Your task to perform on an android device: turn on javascript in the chrome app Image 0: 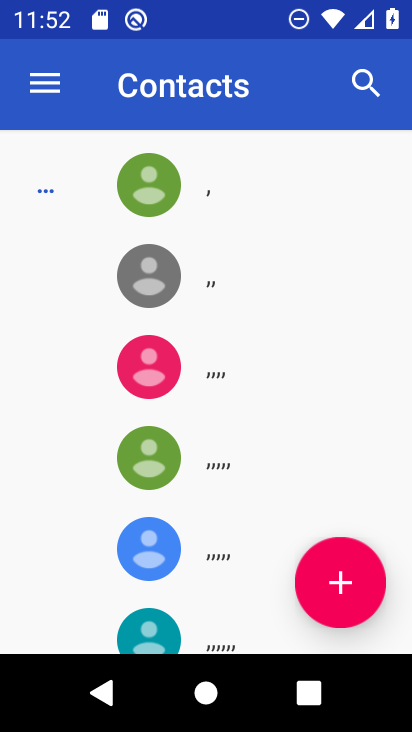
Step 0: press home button
Your task to perform on an android device: turn on javascript in the chrome app Image 1: 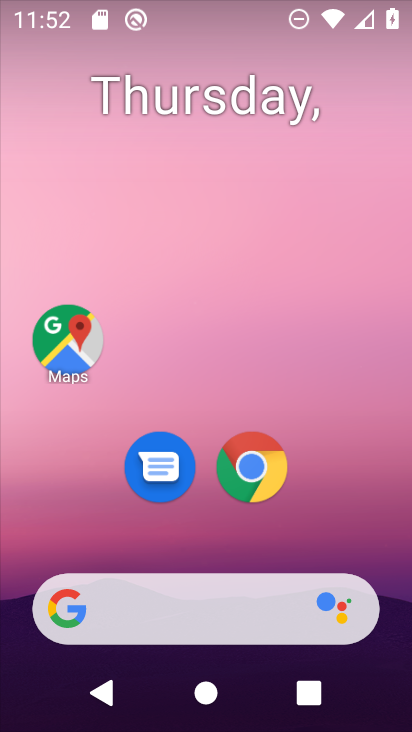
Step 1: click (261, 467)
Your task to perform on an android device: turn on javascript in the chrome app Image 2: 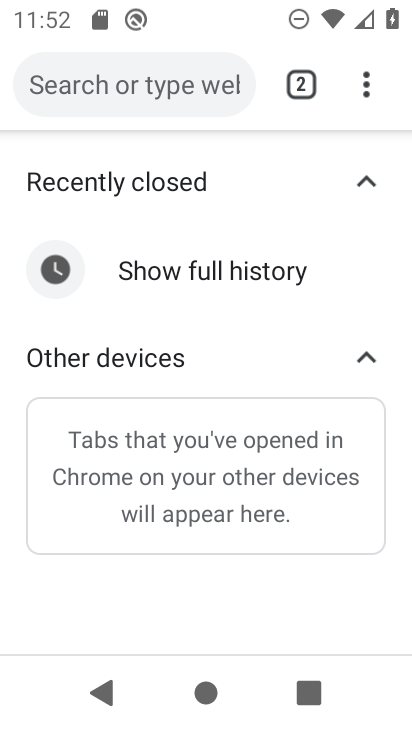
Step 2: click (370, 85)
Your task to perform on an android device: turn on javascript in the chrome app Image 3: 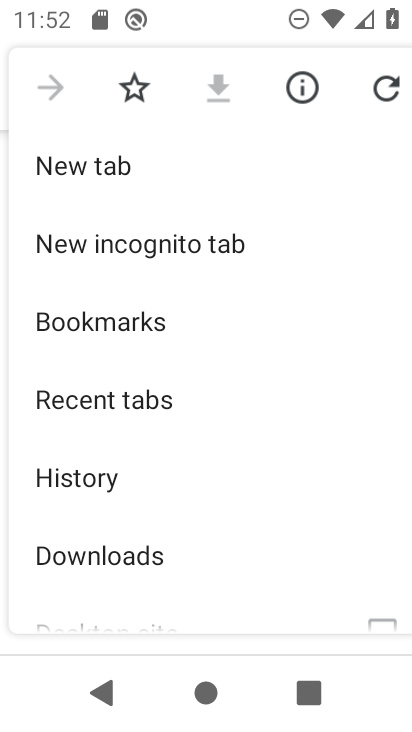
Step 3: drag from (197, 590) to (197, 90)
Your task to perform on an android device: turn on javascript in the chrome app Image 4: 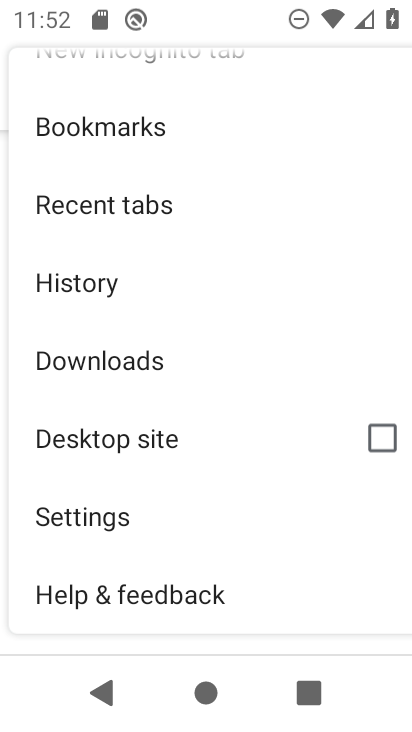
Step 4: click (72, 522)
Your task to perform on an android device: turn on javascript in the chrome app Image 5: 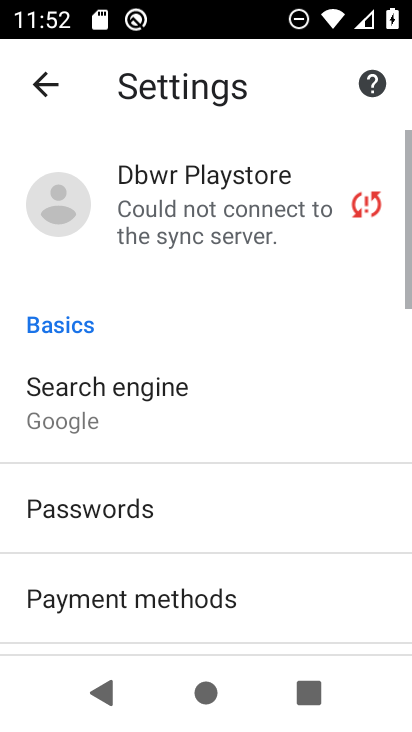
Step 5: drag from (217, 589) to (221, 87)
Your task to perform on an android device: turn on javascript in the chrome app Image 6: 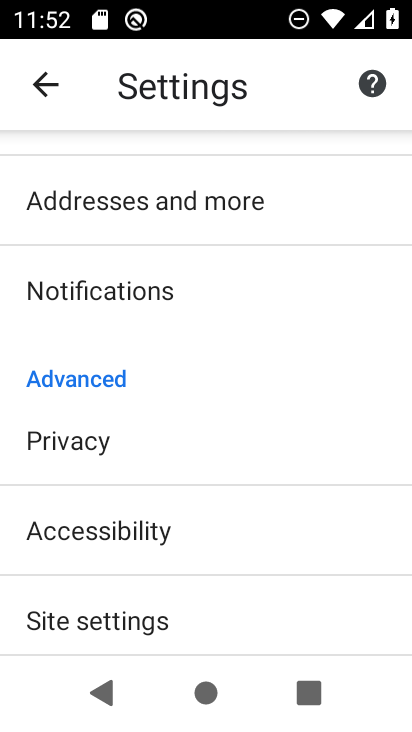
Step 6: drag from (184, 504) to (149, 172)
Your task to perform on an android device: turn on javascript in the chrome app Image 7: 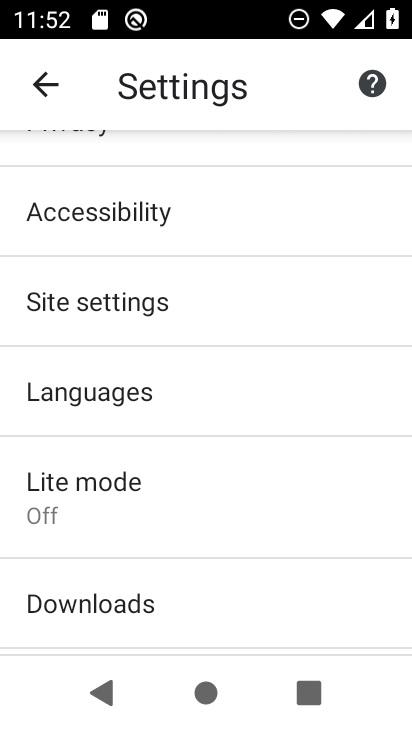
Step 7: click (82, 311)
Your task to perform on an android device: turn on javascript in the chrome app Image 8: 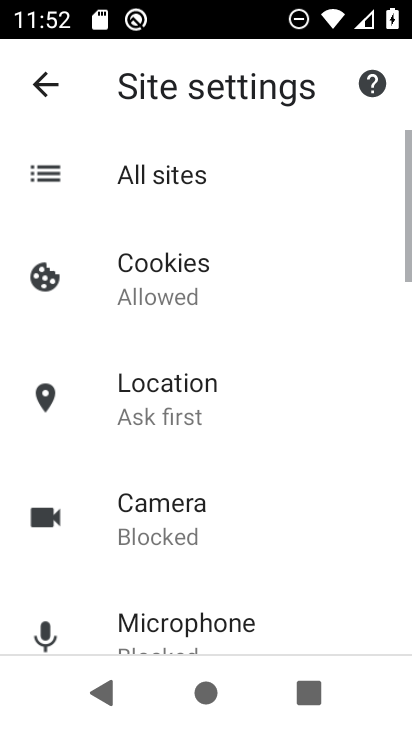
Step 8: drag from (329, 561) to (312, 188)
Your task to perform on an android device: turn on javascript in the chrome app Image 9: 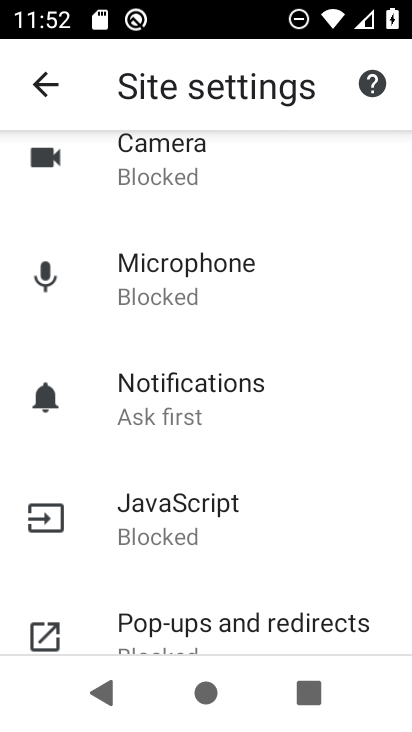
Step 9: click (177, 518)
Your task to perform on an android device: turn on javascript in the chrome app Image 10: 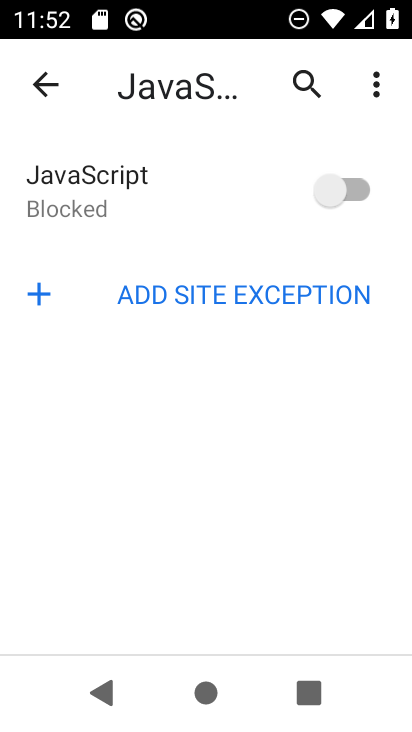
Step 10: click (343, 190)
Your task to perform on an android device: turn on javascript in the chrome app Image 11: 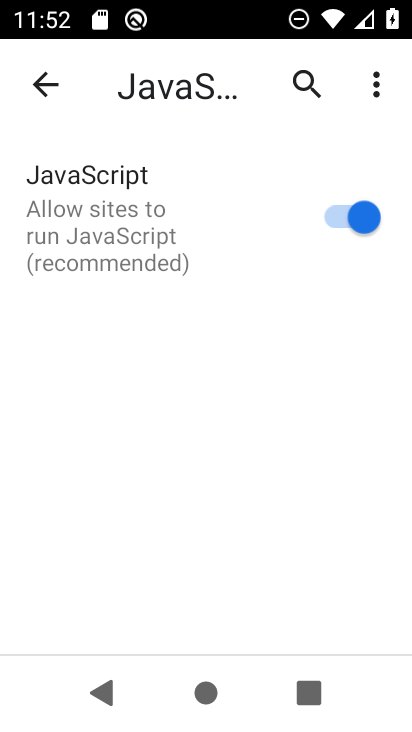
Step 11: task complete